Your task to perform on an android device: Is it going to rain today? Image 0: 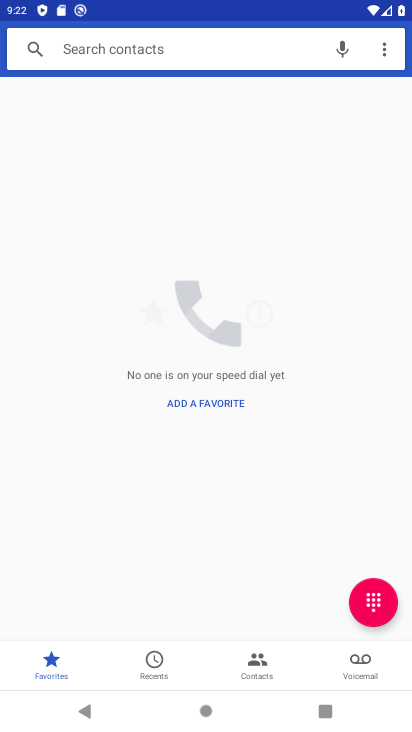
Step 0: press home button
Your task to perform on an android device: Is it going to rain today? Image 1: 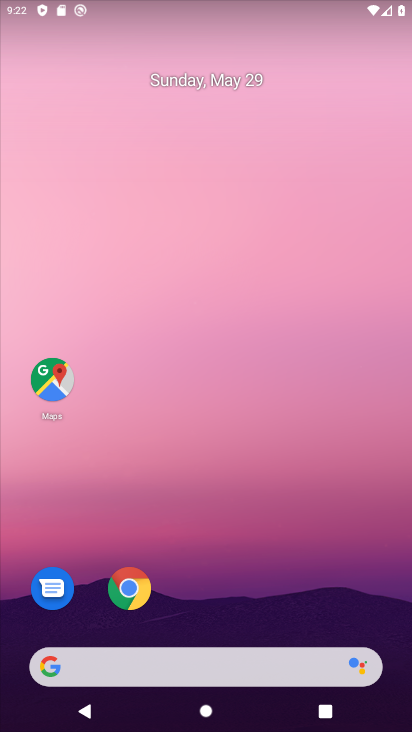
Step 1: drag from (22, 606) to (385, 101)
Your task to perform on an android device: Is it going to rain today? Image 2: 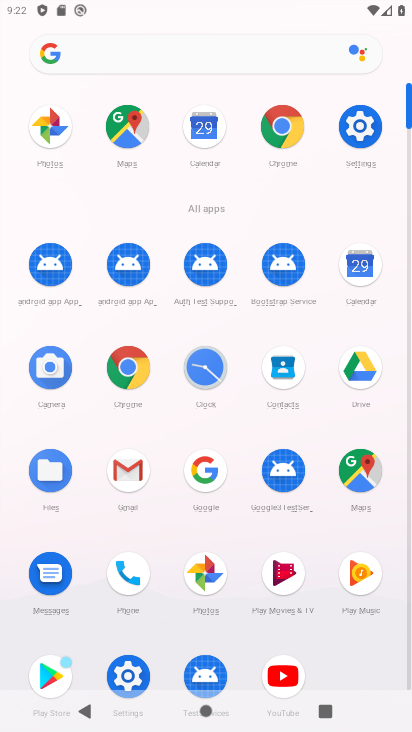
Step 2: press home button
Your task to perform on an android device: Is it going to rain today? Image 3: 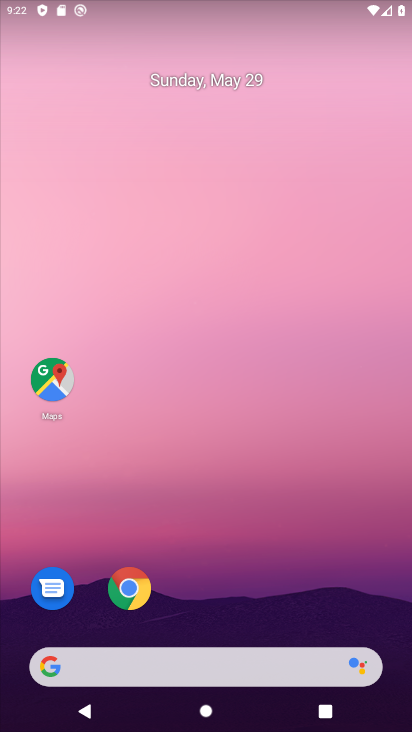
Step 3: click (158, 657)
Your task to perform on an android device: Is it going to rain today? Image 4: 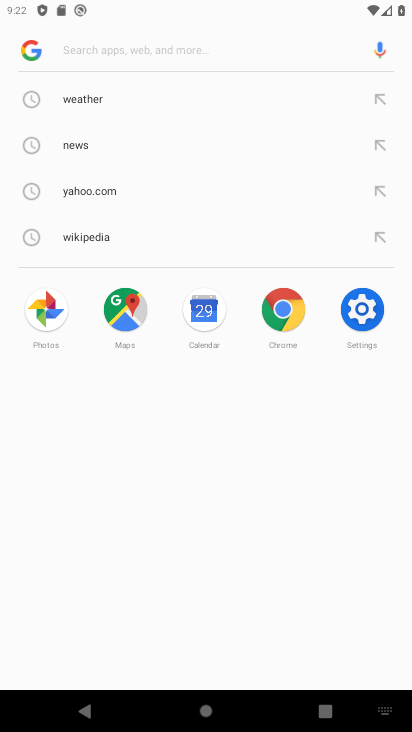
Step 4: click (113, 104)
Your task to perform on an android device: Is it going to rain today? Image 5: 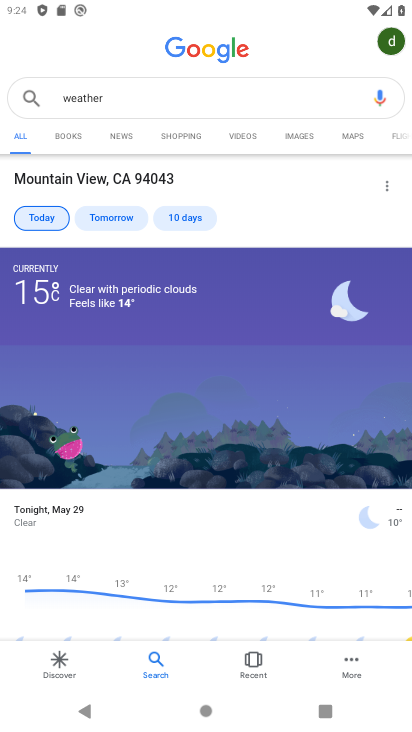
Step 5: task complete